Your task to perform on an android device: open the mobile data screen to see how much data has been used Image 0: 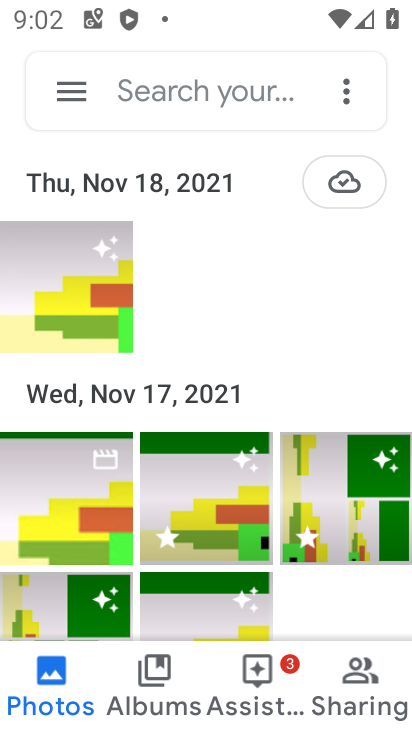
Step 0: press home button
Your task to perform on an android device: open the mobile data screen to see how much data has been used Image 1: 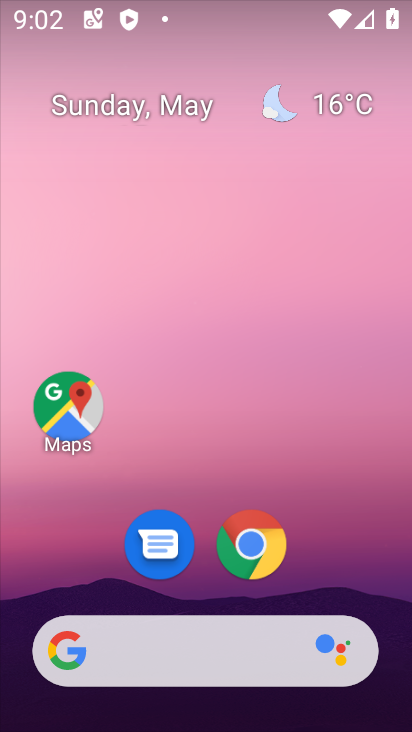
Step 1: drag from (326, 588) to (222, 81)
Your task to perform on an android device: open the mobile data screen to see how much data has been used Image 2: 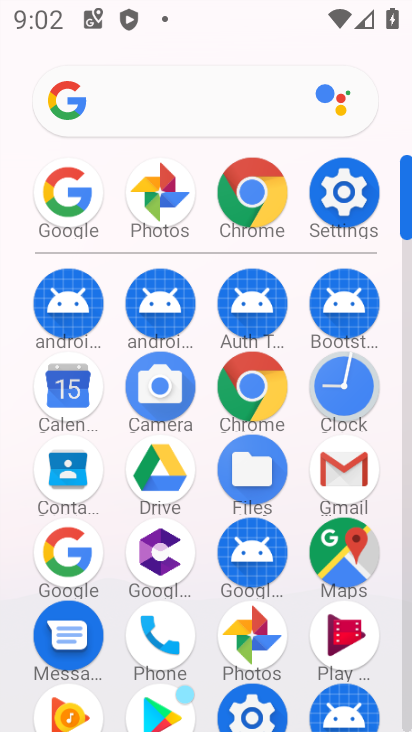
Step 2: click (326, 216)
Your task to perform on an android device: open the mobile data screen to see how much data has been used Image 3: 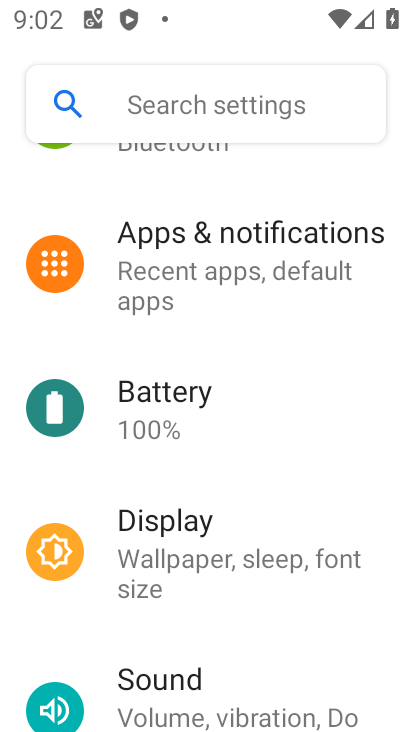
Step 3: drag from (218, 279) to (248, 509)
Your task to perform on an android device: open the mobile data screen to see how much data has been used Image 4: 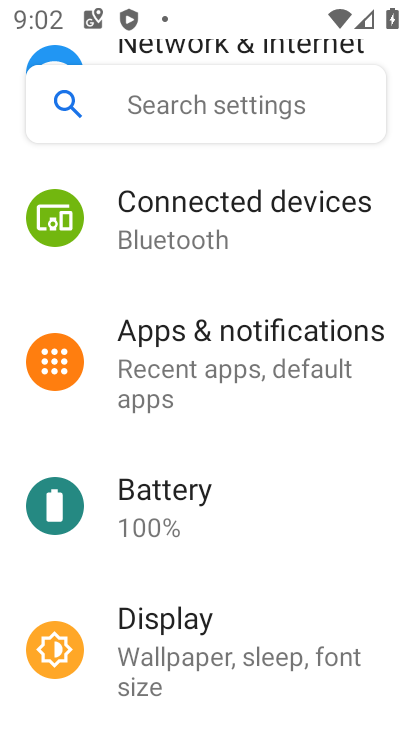
Step 4: drag from (231, 330) to (226, 574)
Your task to perform on an android device: open the mobile data screen to see how much data has been used Image 5: 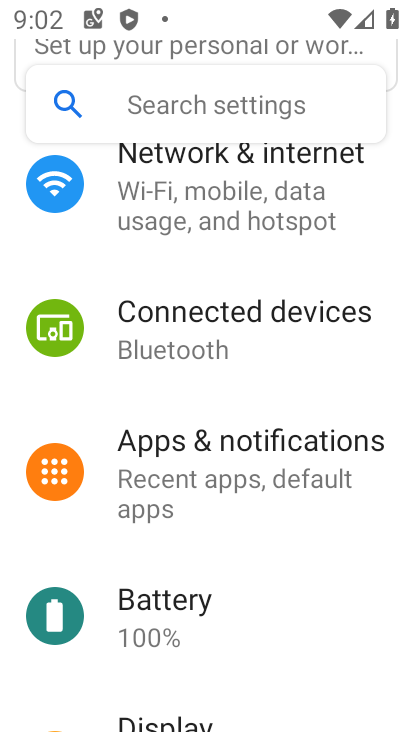
Step 5: click (167, 150)
Your task to perform on an android device: open the mobile data screen to see how much data has been used Image 6: 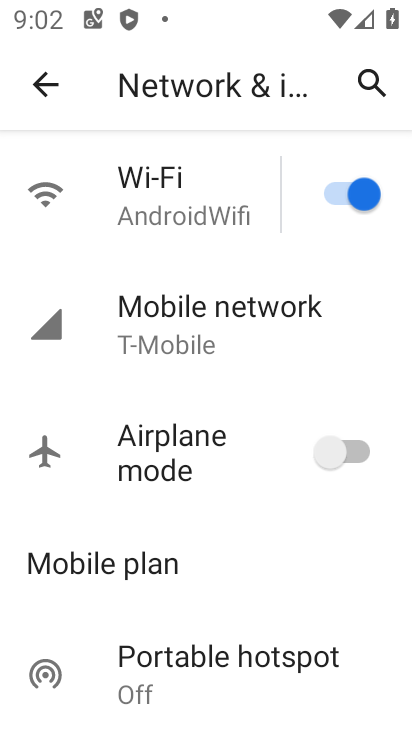
Step 6: click (243, 379)
Your task to perform on an android device: open the mobile data screen to see how much data has been used Image 7: 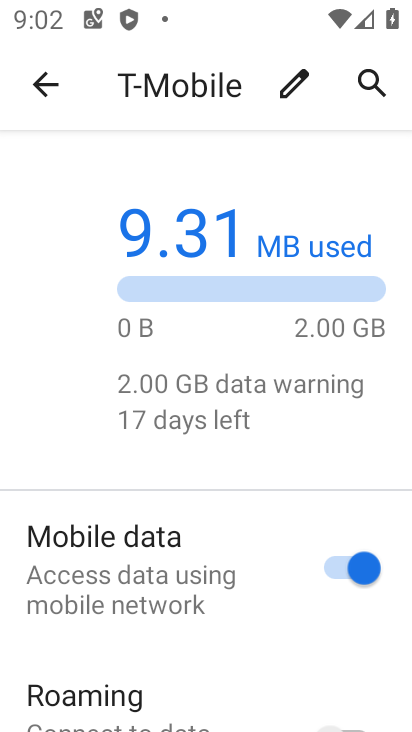
Step 7: task complete